Your task to perform on an android device: delete browsing data in the chrome app Image 0: 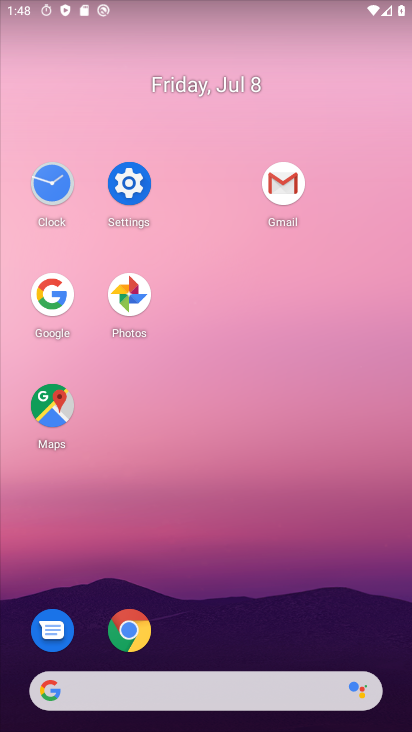
Step 0: click (135, 620)
Your task to perform on an android device: delete browsing data in the chrome app Image 1: 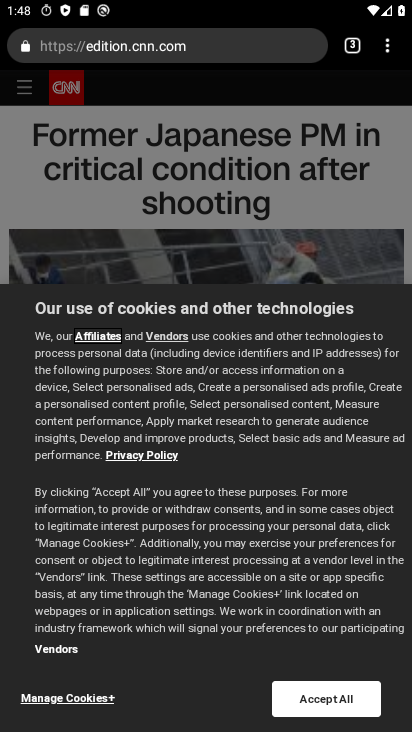
Step 1: click (388, 53)
Your task to perform on an android device: delete browsing data in the chrome app Image 2: 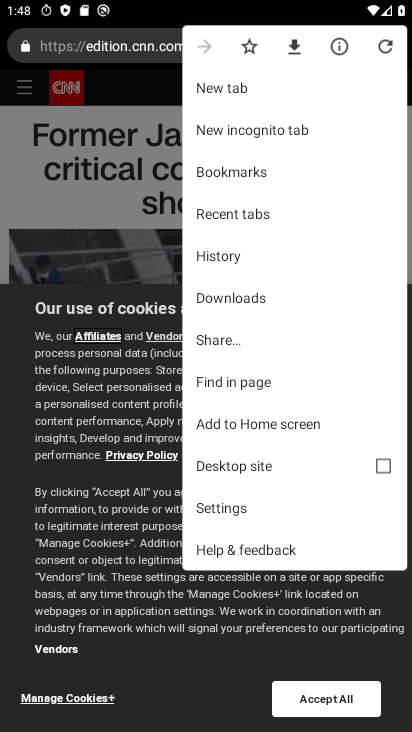
Step 2: click (257, 503)
Your task to perform on an android device: delete browsing data in the chrome app Image 3: 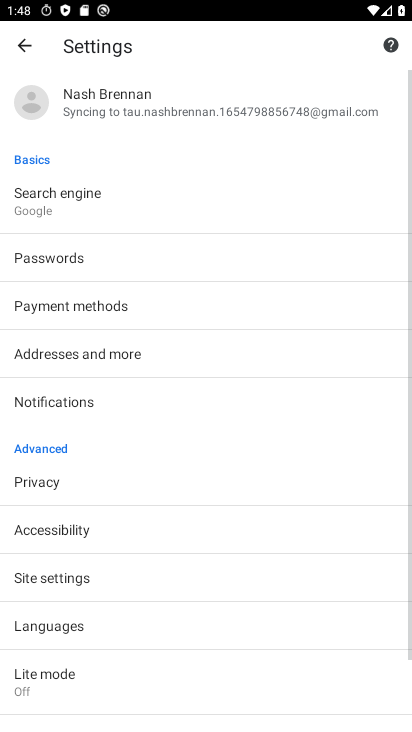
Step 3: drag from (112, 659) to (153, 266)
Your task to perform on an android device: delete browsing data in the chrome app Image 4: 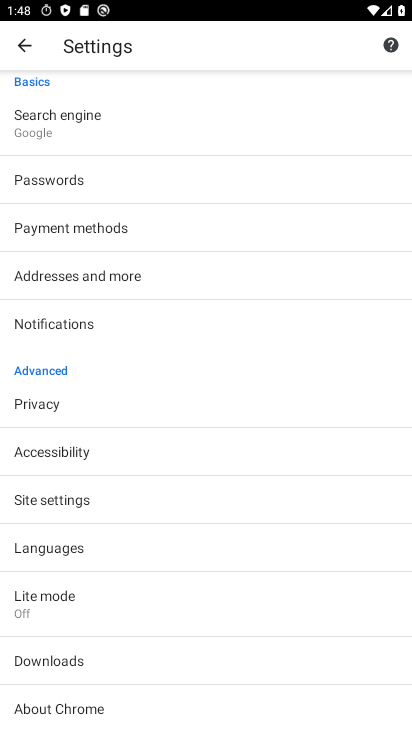
Step 4: click (141, 400)
Your task to perform on an android device: delete browsing data in the chrome app Image 5: 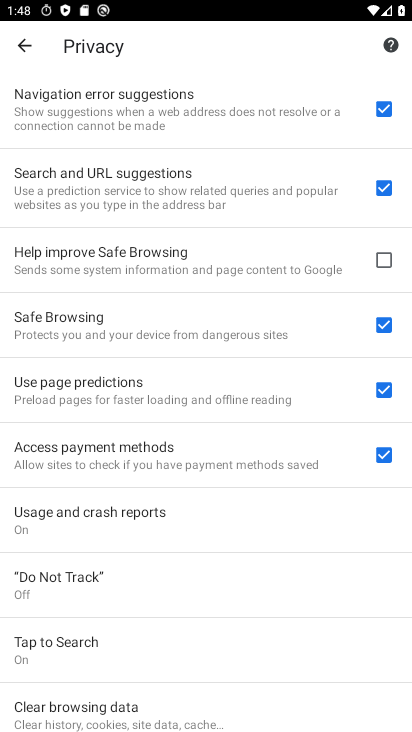
Step 5: click (207, 707)
Your task to perform on an android device: delete browsing data in the chrome app Image 6: 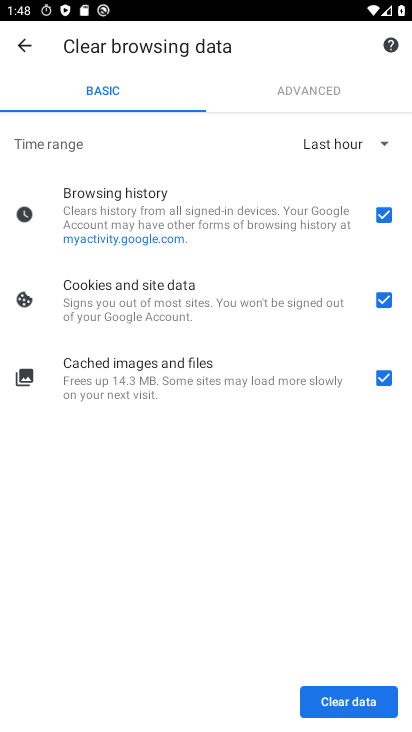
Step 6: click (337, 698)
Your task to perform on an android device: delete browsing data in the chrome app Image 7: 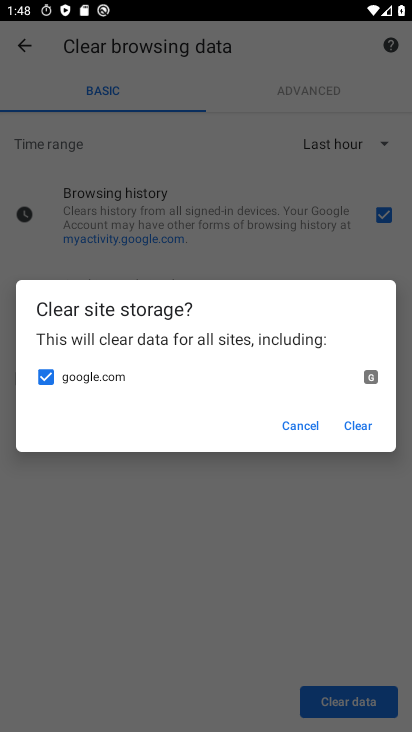
Step 7: click (364, 424)
Your task to perform on an android device: delete browsing data in the chrome app Image 8: 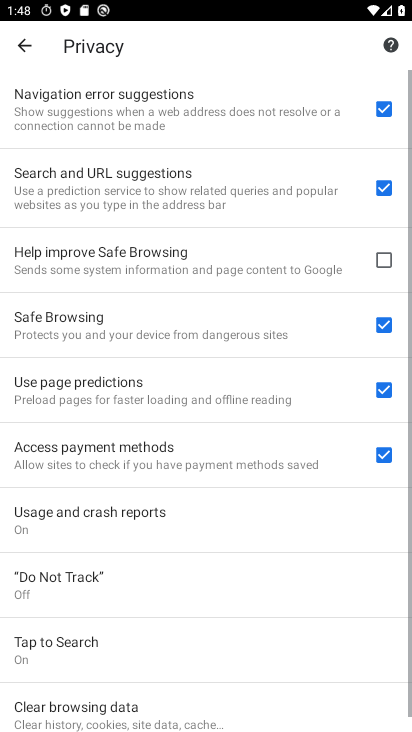
Step 8: task complete